Your task to perform on an android device: Is it going to rain this weekend? Image 0: 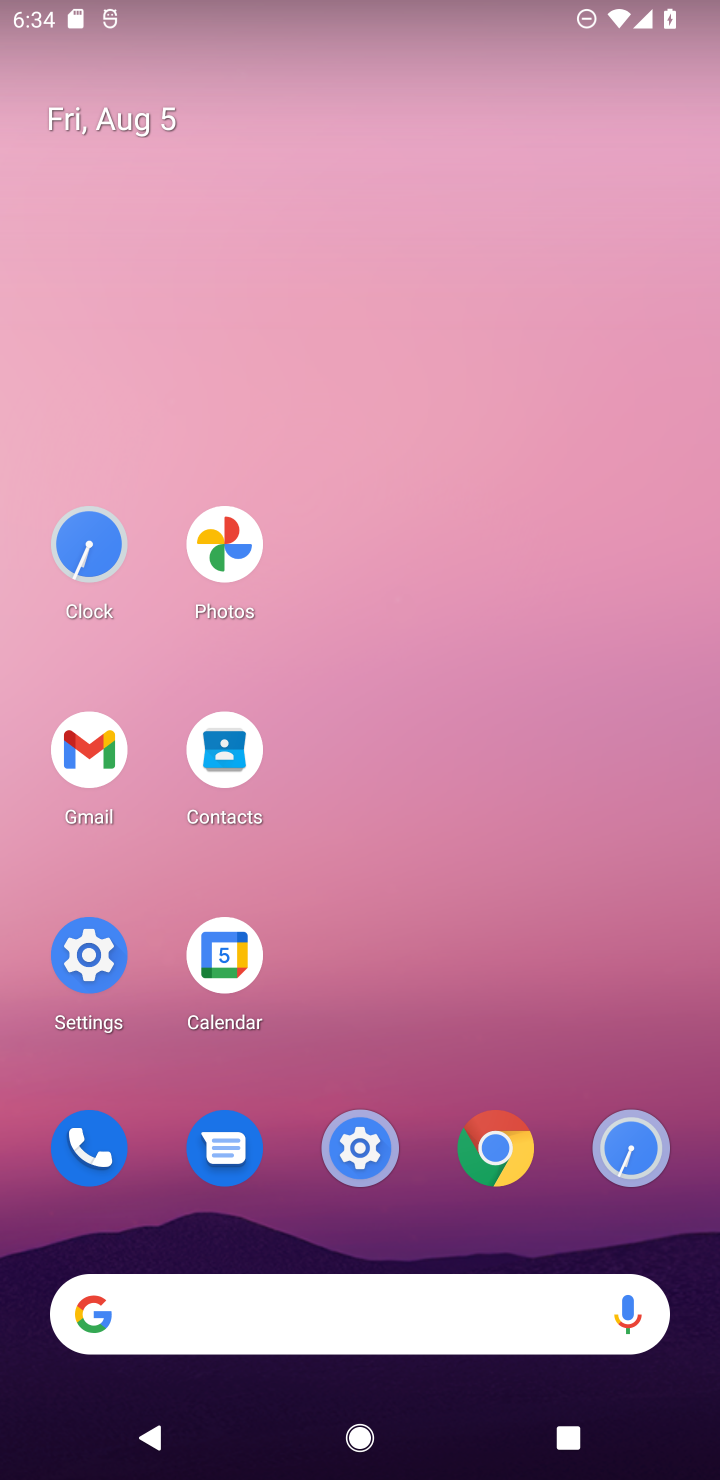
Step 0: click (371, 1319)
Your task to perform on an android device: Is it going to rain this weekend? Image 1: 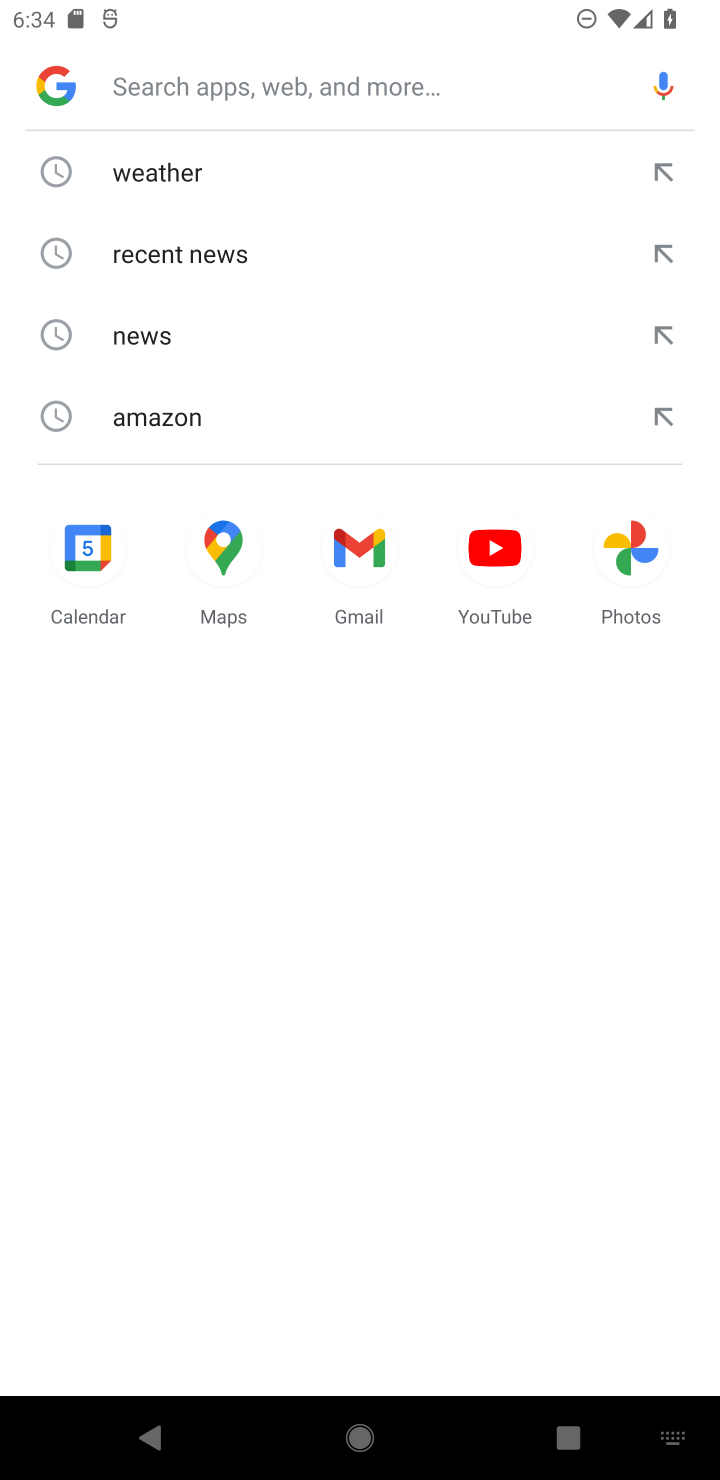
Step 1: click (170, 163)
Your task to perform on an android device: Is it going to rain this weekend? Image 2: 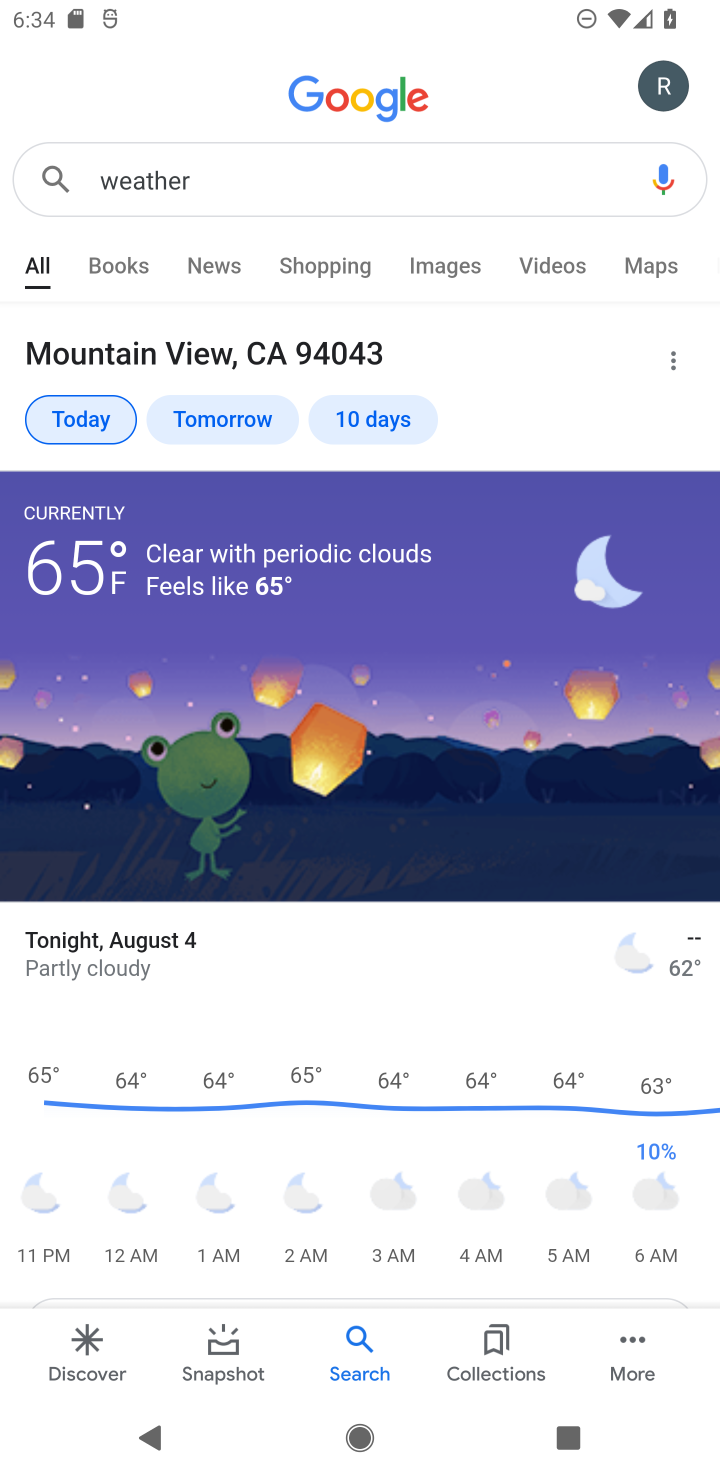
Step 2: click (356, 431)
Your task to perform on an android device: Is it going to rain this weekend? Image 3: 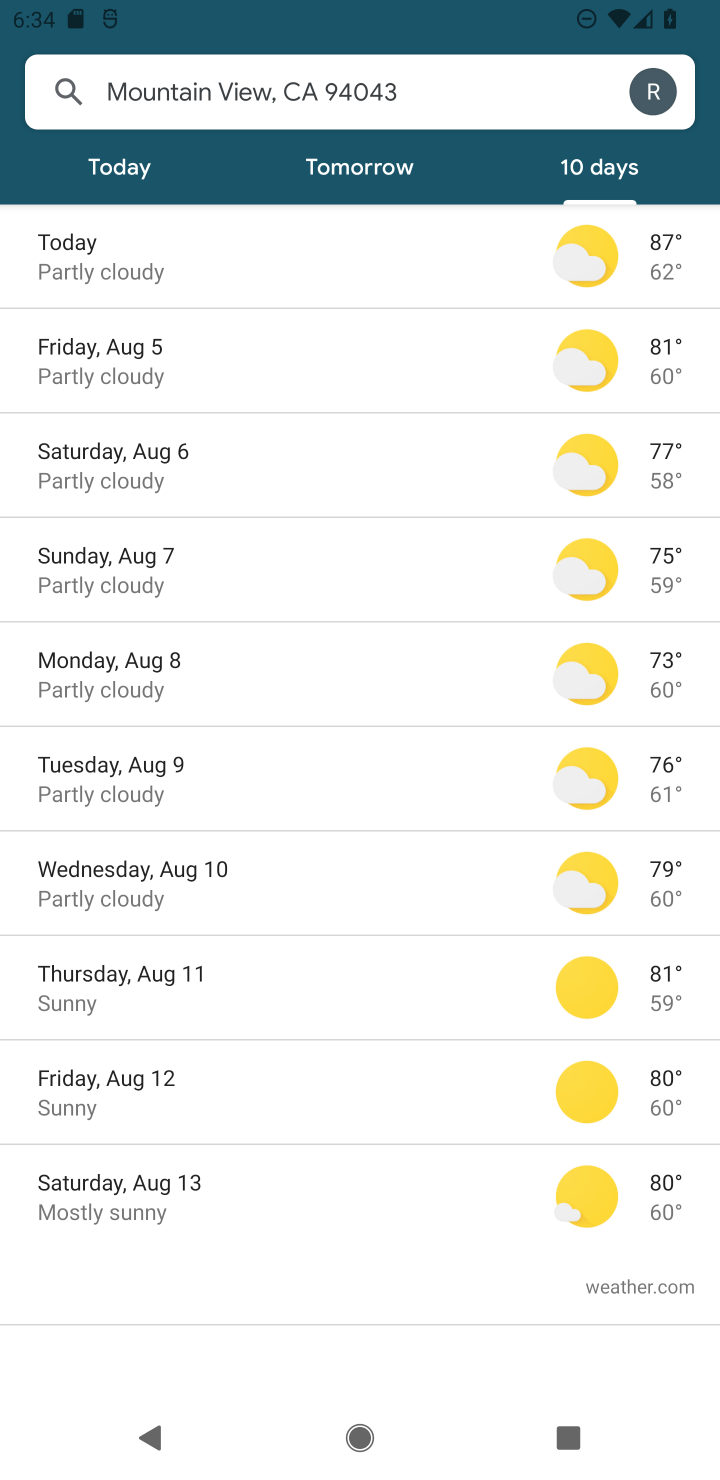
Step 3: task complete